Your task to perform on an android device: check storage Image 0: 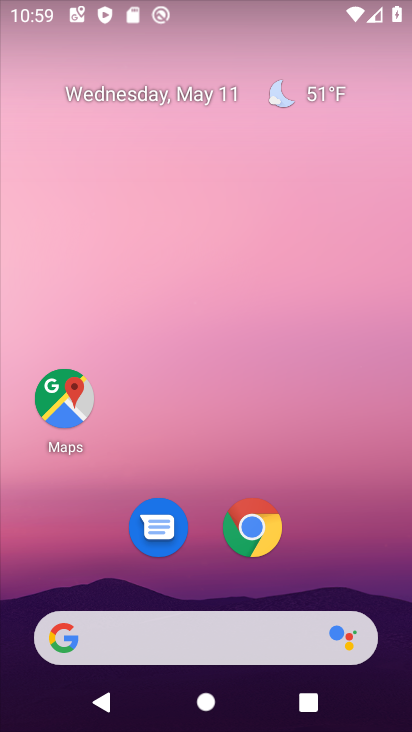
Step 0: drag from (333, 531) to (371, 87)
Your task to perform on an android device: check storage Image 1: 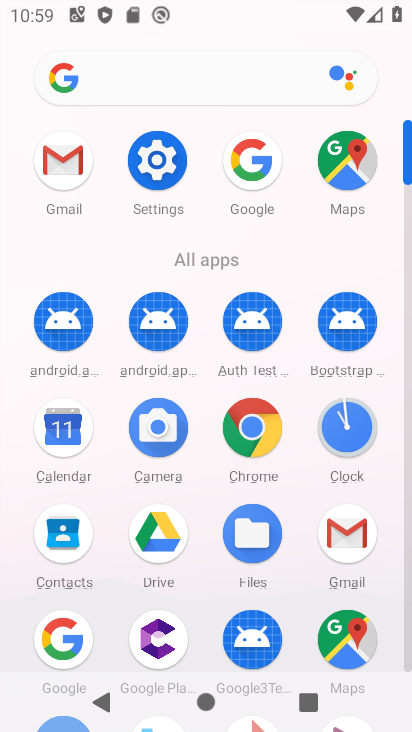
Step 1: click (150, 171)
Your task to perform on an android device: check storage Image 2: 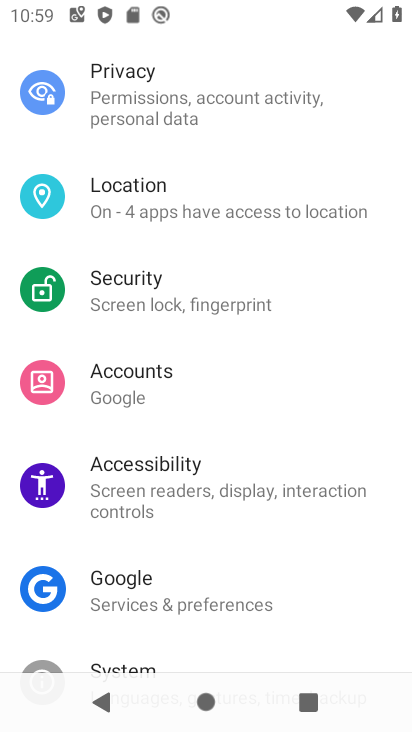
Step 2: drag from (141, 148) to (116, 381)
Your task to perform on an android device: check storage Image 3: 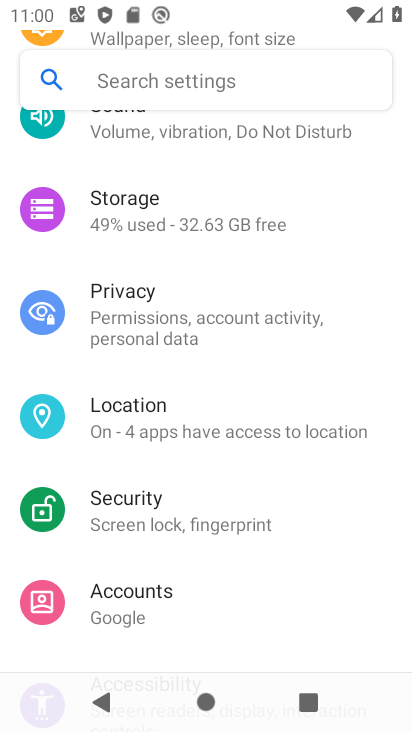
Step 3: click (133, 209)
Your task to perform on an android device: check storage Image 4: 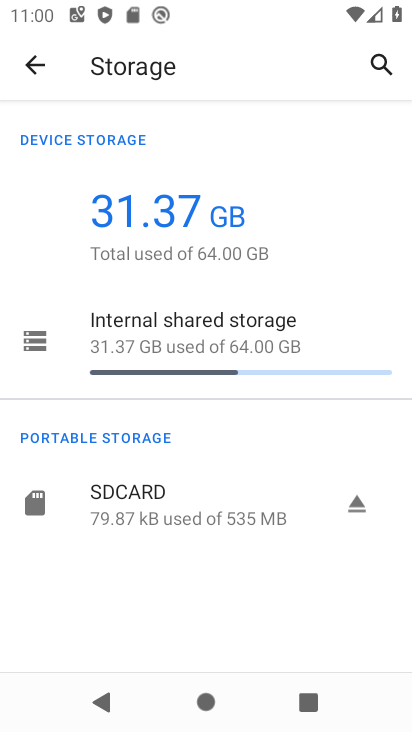
Step 4: task complete